Your task to perform on an android device: Is it going to rain today? Image 0: 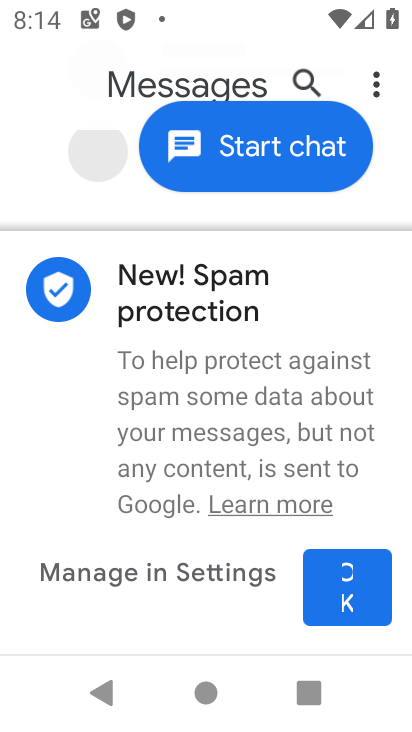
Step 0: press home button
Your task to perform on an android device: Is it going to rain today? Image 1: 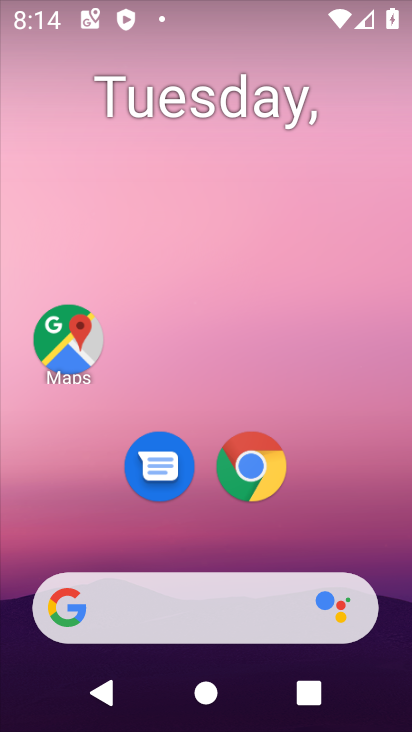
Step 1: drag from (324, 517) to (290, 48)
Your task to perform on an android device: Is it going to rain today? Image 2: 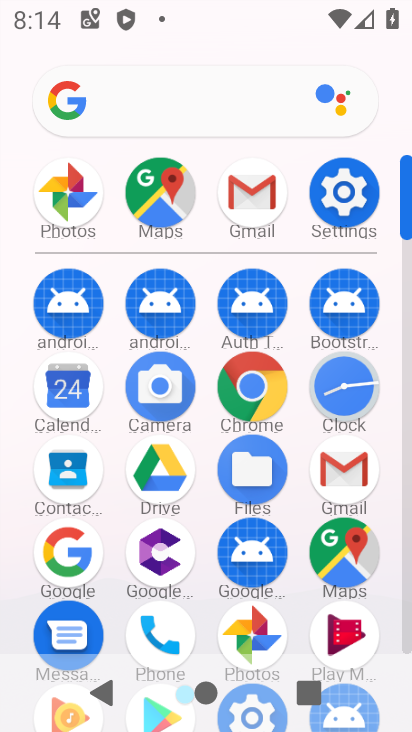
Step 2: click (183, 107)
Your task to perform on an android device: Is it going to rain today? Image 3: 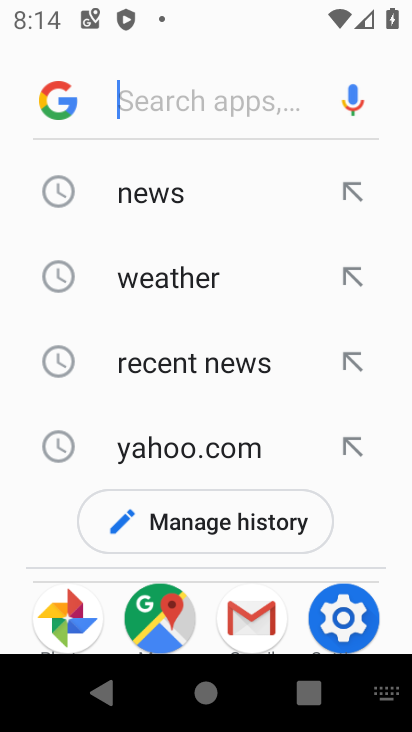
Step 3: click (177, 278)
Your task to perform on an android device: Is it going to rain today? Image 4: 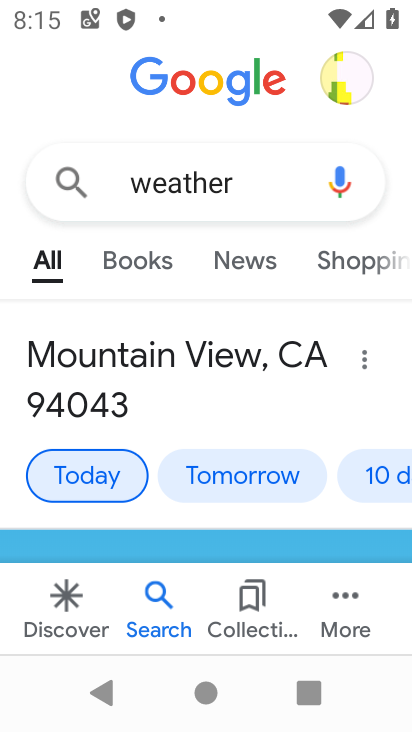
Step 4: task complete